Your task to perform on an android device: Go to notification settings Image 0: 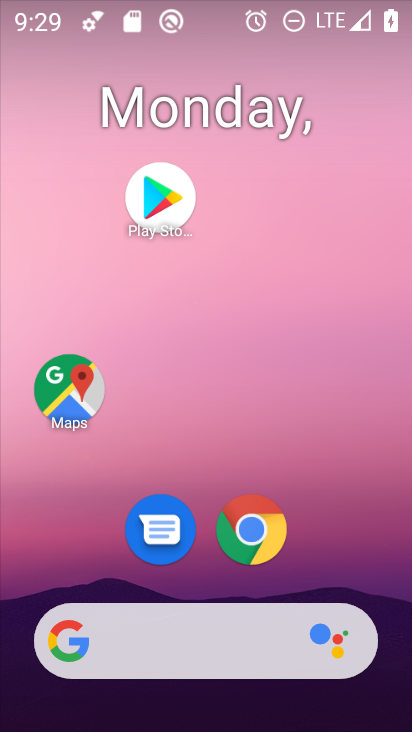
Step 0: drag from (341, 514) to (215, 28)
Your task to perform on an android device: Go to notification settings Image 1: 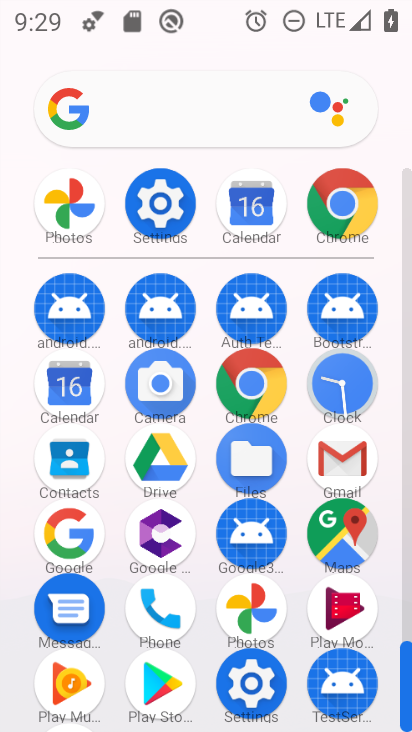
Step 1: click (160, 200)
Your task to perform on an android device: Go to notification settings Image 2: 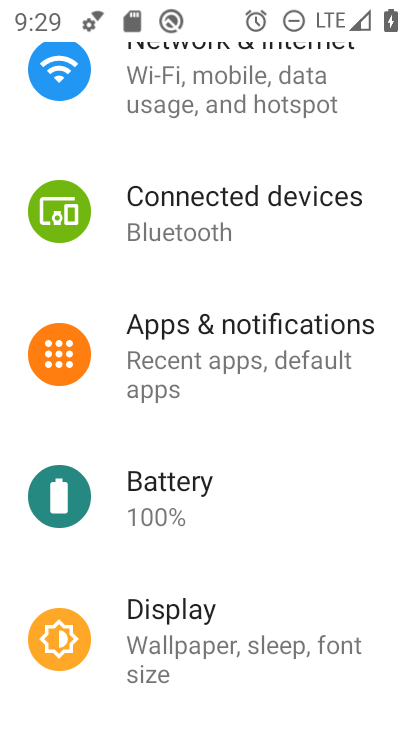
Step 2: click (230, 317)
Your task to perform on an android device: Go to notification settings Image 3: 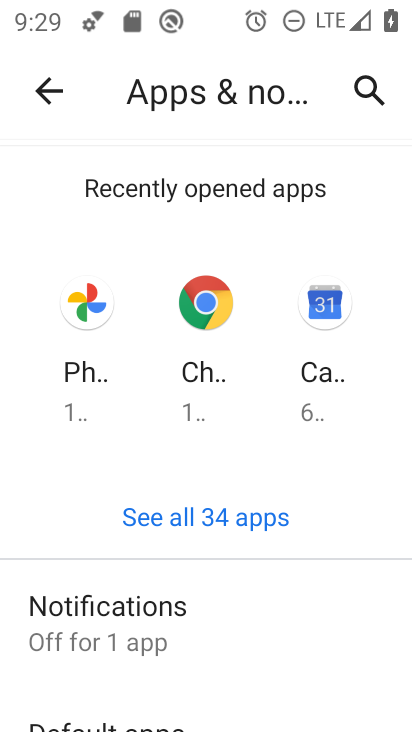
Step 3: task complete